Your task to perform on an android device: Open Youtube and go to the subscriptions tab Image 0: 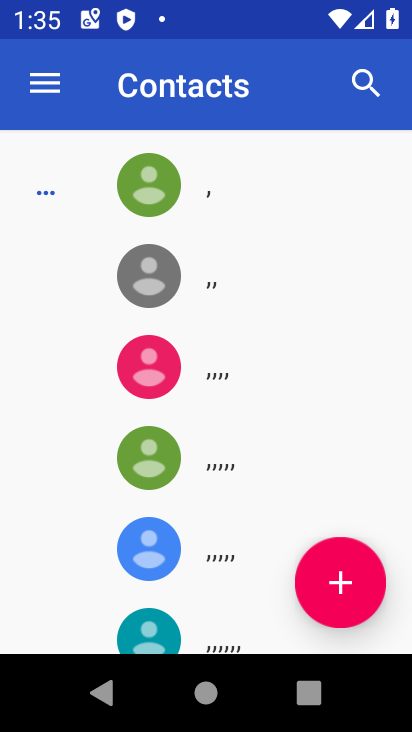
Step 0: press home button
Your task to perform on an android device: Open Youtube and go to the subscriptions tab Image 1: 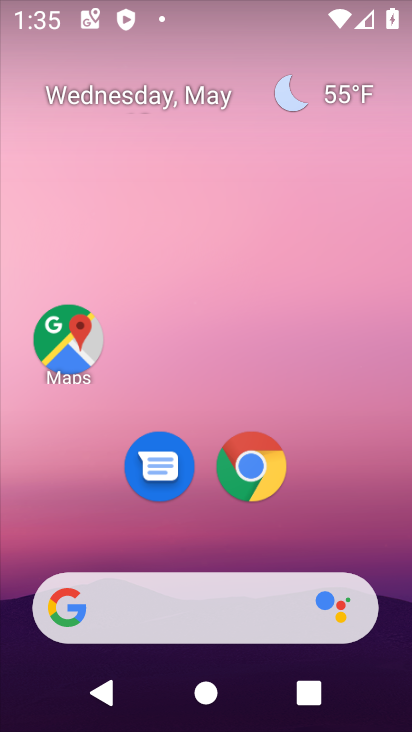
Step 1: drag from (203, 547) to (267, 39)
Your task to perform on an android device: Open Youtube and go to the subscriptions tab Image 2: 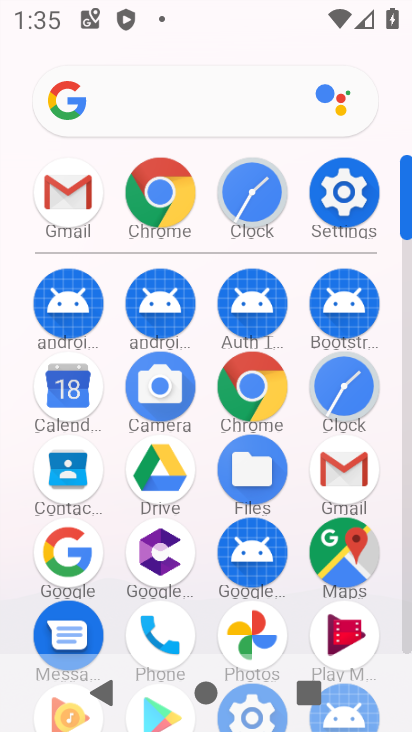
Step 2: drag from (303, 624) to (299, 287)
Your task to perform on an android device: Open Youtube and go to the subscriptions tab Image 3: 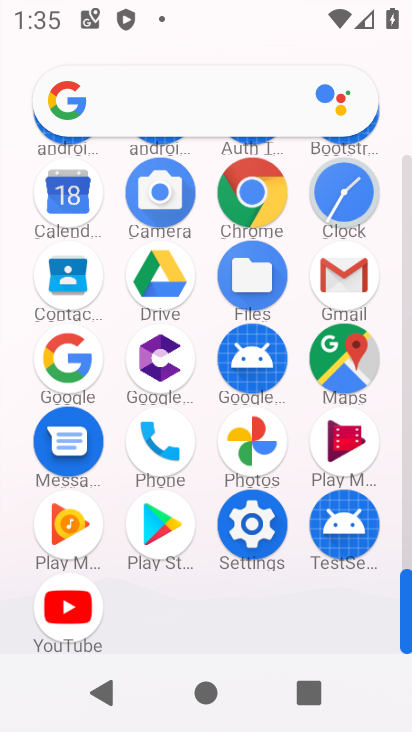
Step 3: click (52, 616)
Your task to perform on an android device: Open Youtube and go to the subscriptions tab Image 4: 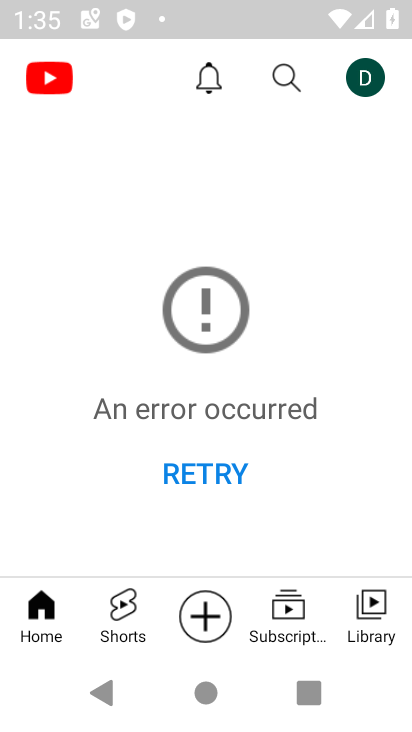
Step 4: click (289, 620)
Your task to perform on an android device: Open Youtube and go to the subscriptions tab Image 5: 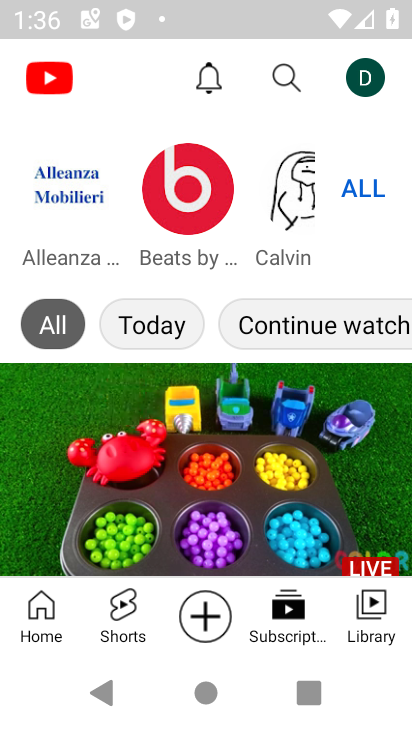
Step 5: task complete